Your task to perform on an android device: change timer sound Image 0: 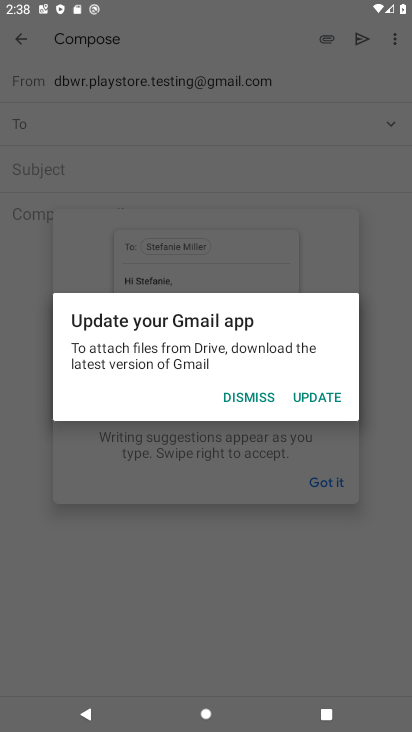
Step 0: press home button
Your task to perform on an android device: change timer sound Image 1: 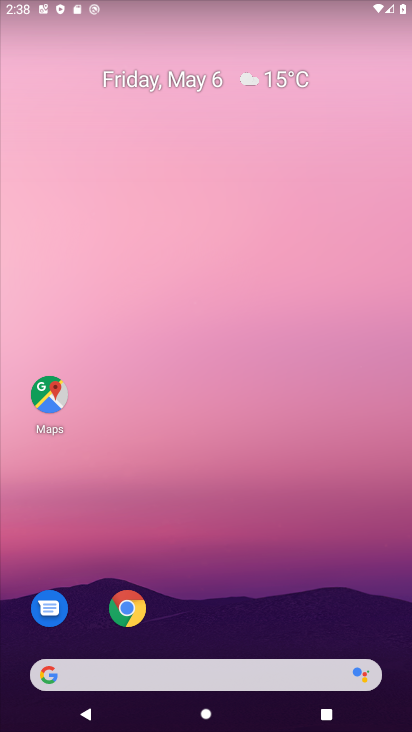
Step 1: drag from (198, 662) to (246, 85)
Your task to perform on an android device: change timer sound Image 2: 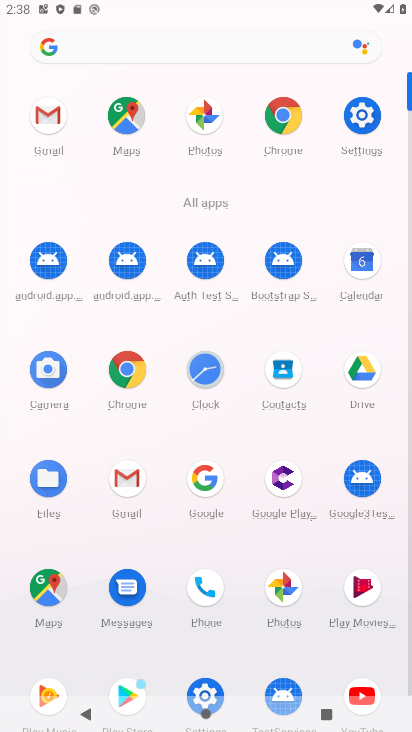
Step 2: click (201, 360)
Your task to perform on an android device: change timer sound Image 3: 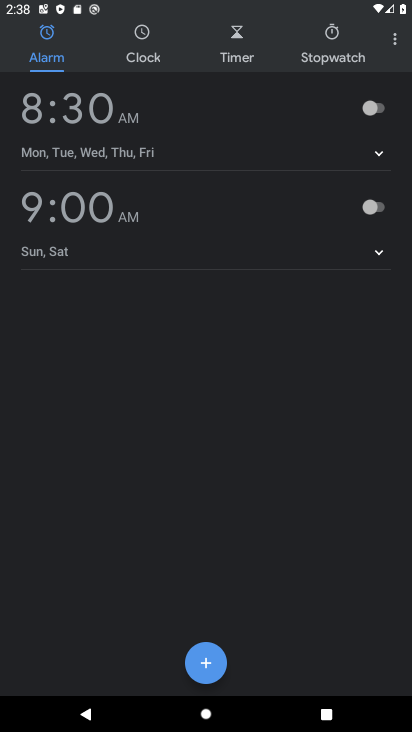
Step 3: click (237, 49)
Your task to perform on an android device: change timer sound Image 4: 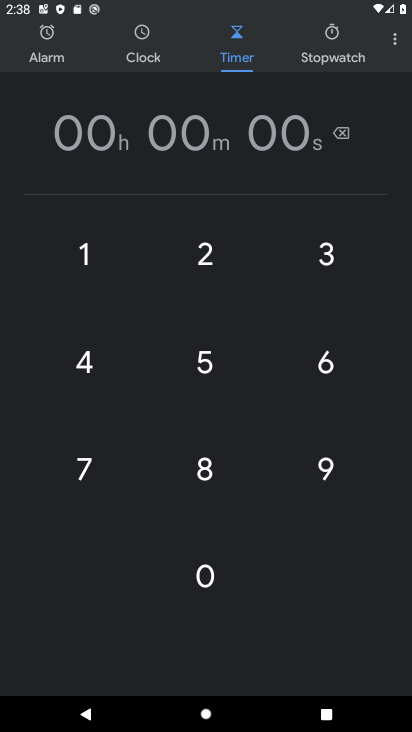
Step 4: click (391, 39)
Your task to perform on an android device: change timer sound Image 5: 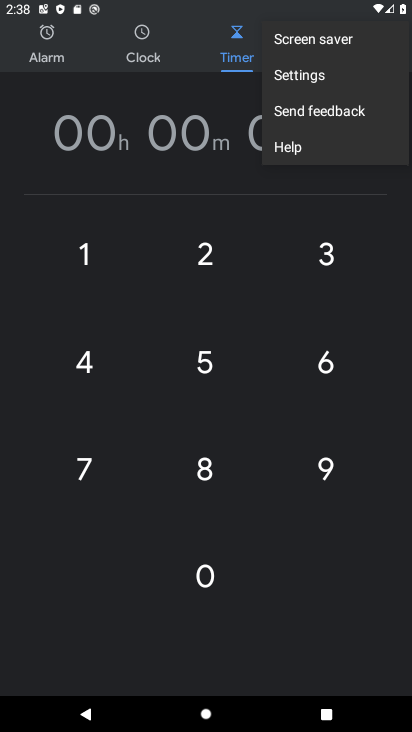
Step 5: click (312, 83)
Your task to perform on an android device: change timer sound Image 6: 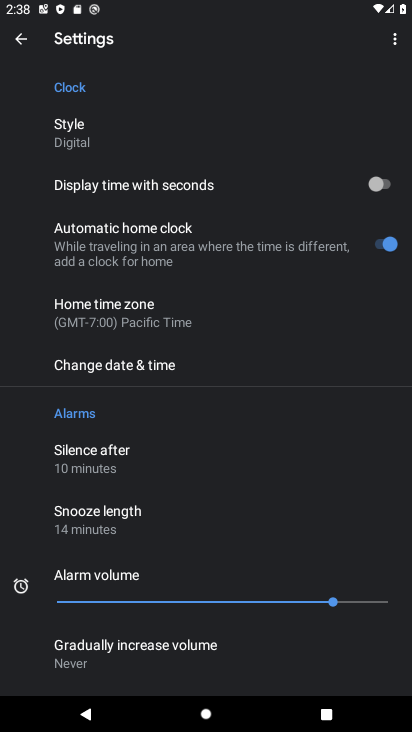
Step 6: drag from (212, 451) to (298, 107)
Your task to perform on an android device: change timer sound Image 7: 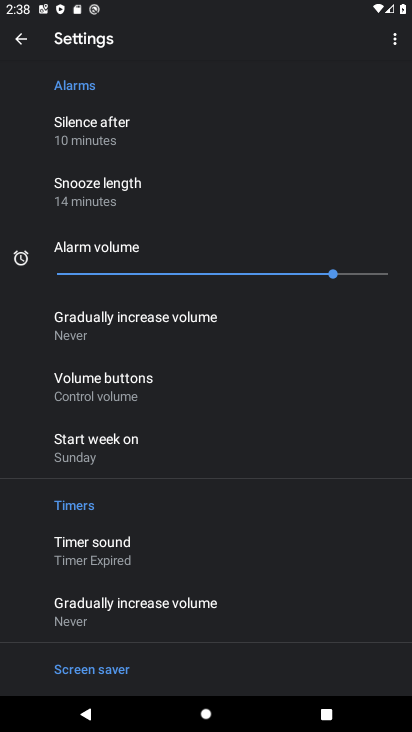
Step 7: click (136, 536)
Your task to perform on an android device: change timer sound Image 8: 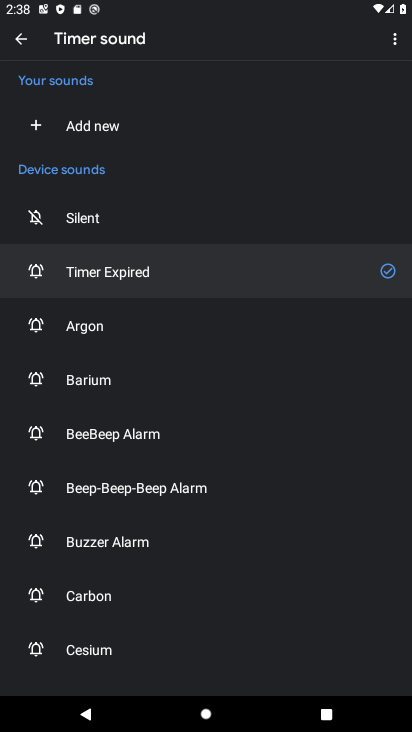
Step 8: click (139, 342)
Your task to perform on an android device: change timer sound Image 9: 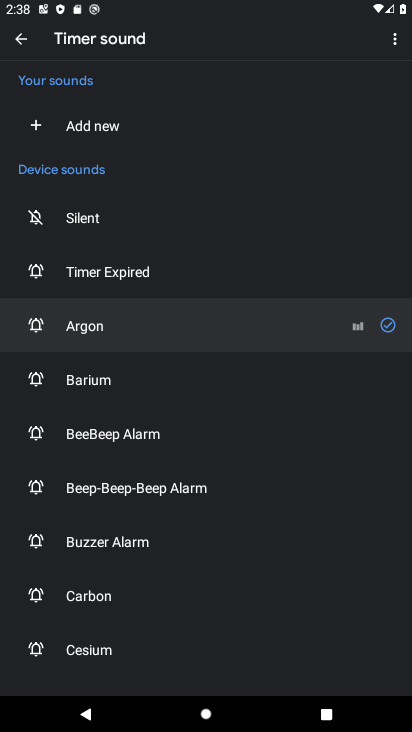
Step 9: task complete